Your task to perform on an android device: Open calendar and show me the first week of next month Image 0: 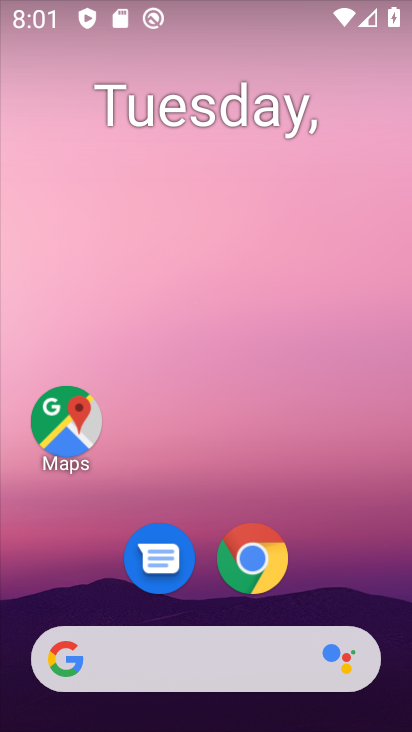
Step 0: drag from (209, 630) to (124, 55)
Your task to perform on an android device: Open calendar and show me the first week of next month Image 1: 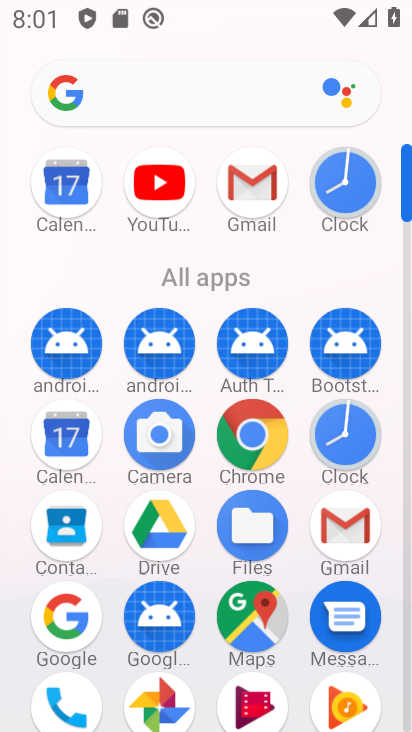
Step 1: click (52, 442)
Your task to perform on an android device: Open calendar and show me the first week of next month Image 2: 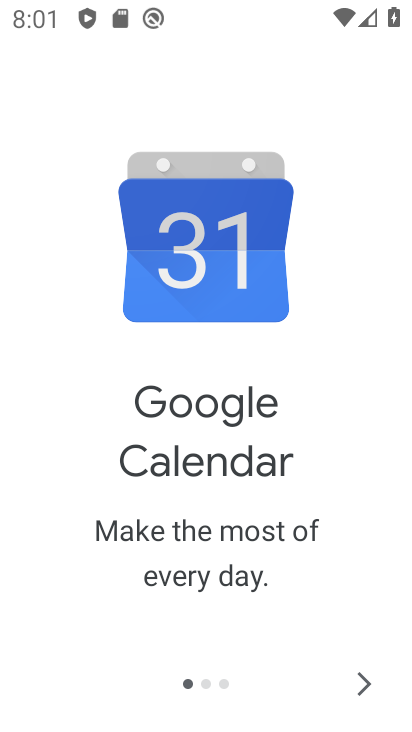
Step 2: click (363, 684)
Your task to perform on an android device: Open calendar and show me the first week of next month Image 3: 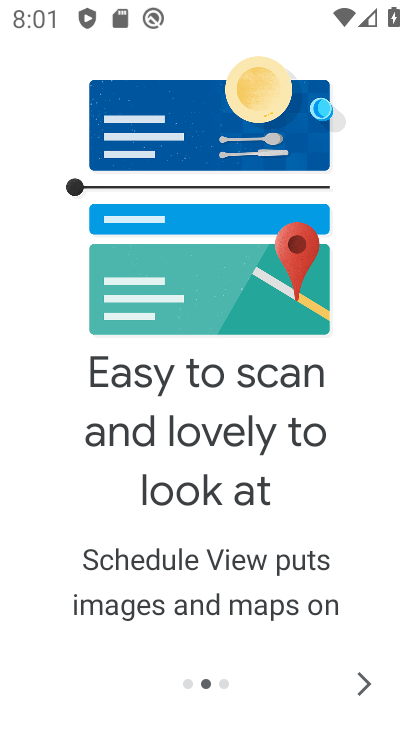
Step 3: click (363, 684)
Your task to perform on an android device: Open calendar and show me the first week of next month Image 4: 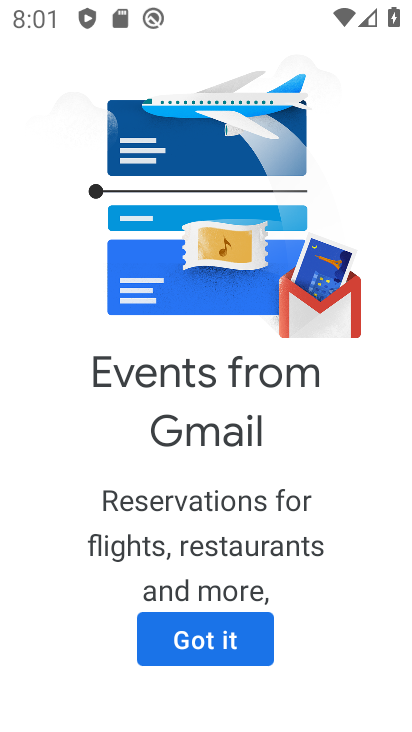
Step 4: click (183, 641)
Your task to perform on an android device: Open calendar and show me the first week of next month Image 5: 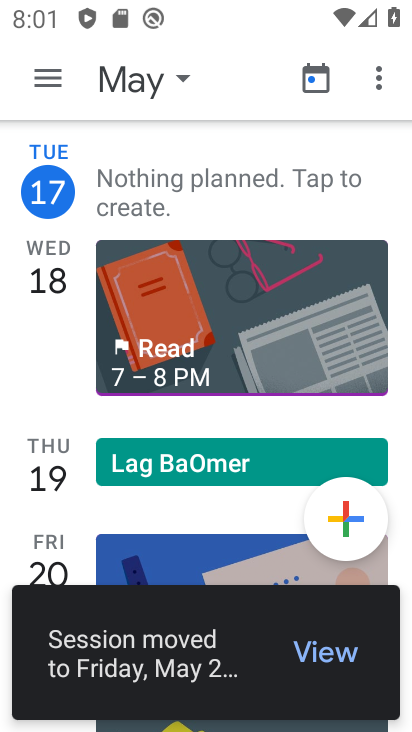
Step 5: click (50, 84)
Your task to perform on an android device: Open calendar and show me the first week of next month Image 6: 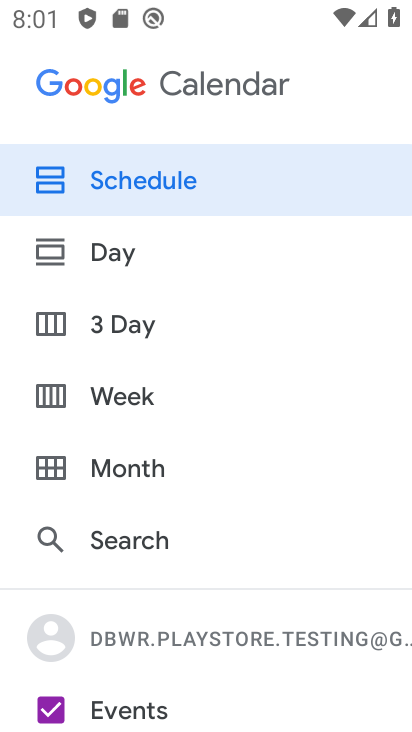
Step 6: click (130, 400)
Your task to perform on an android device: Open calendar and show me the first week of next month Image 7: 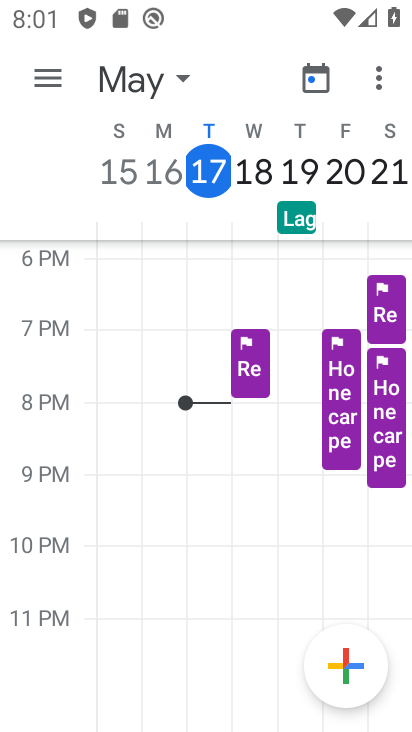
Step 7: task complete